Your task to perform on an android device: add a contact Image 0: 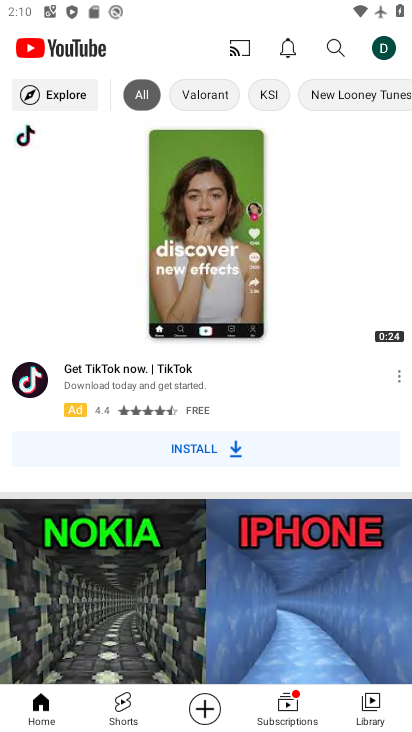
Step 0: press home button
Your task to perform on an android device: add a contact Image 1: 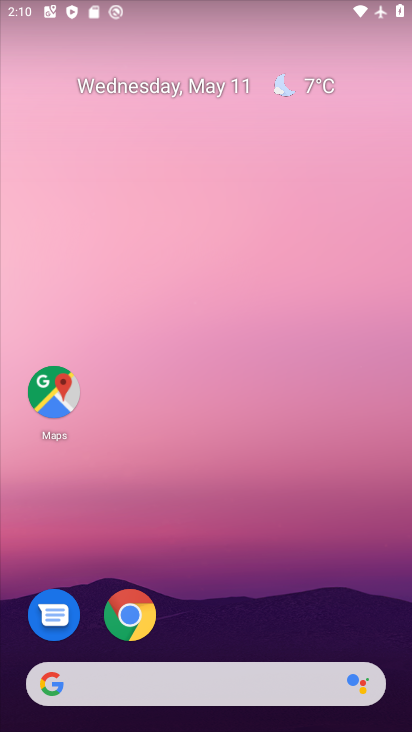
Step 1: drag from (258, 595) to (250, 139)
Your task to perform on an android device: add a contact Image 2: 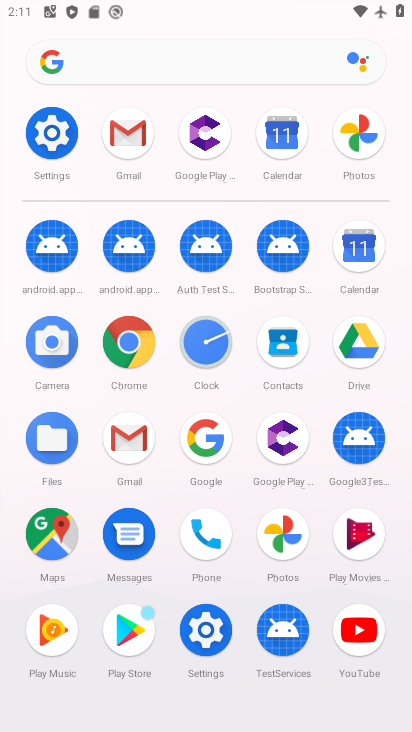
Step 2: click (287, 340)
Your task to perform on an android device: add a contact Image 3: 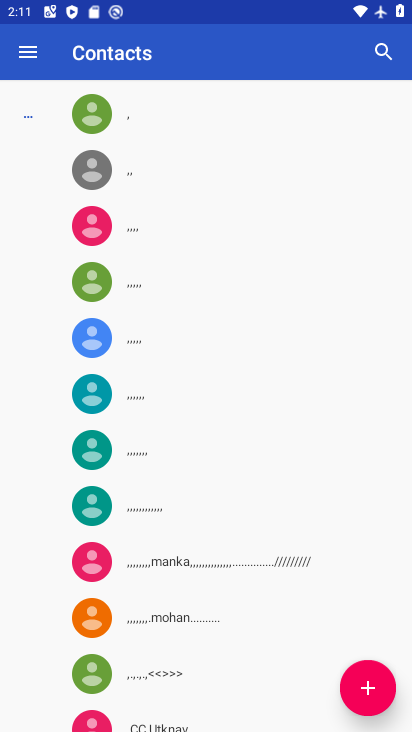
Step 3: click (372, 680)
Your task to perform on an android device: add a contact Image 4: 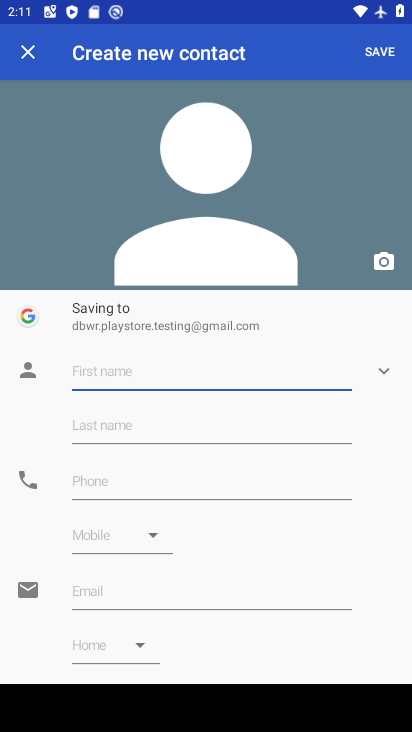
Step 4: click (200, 367)
Your task to perform on an android device: add a contact Image 5: 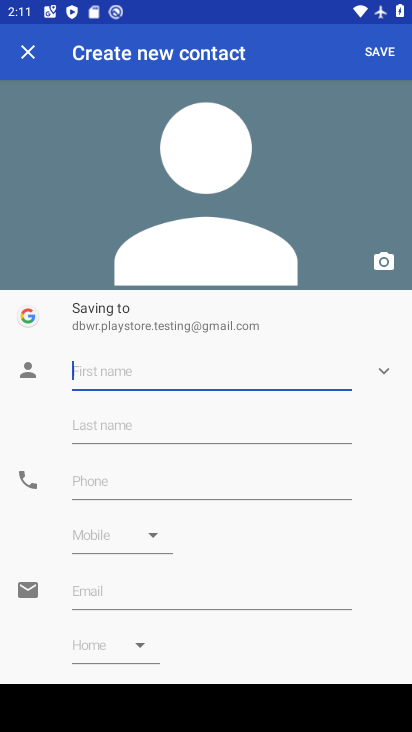
Step 5: type "boby"
Your task to perform on an android device: add a contact Image 6: 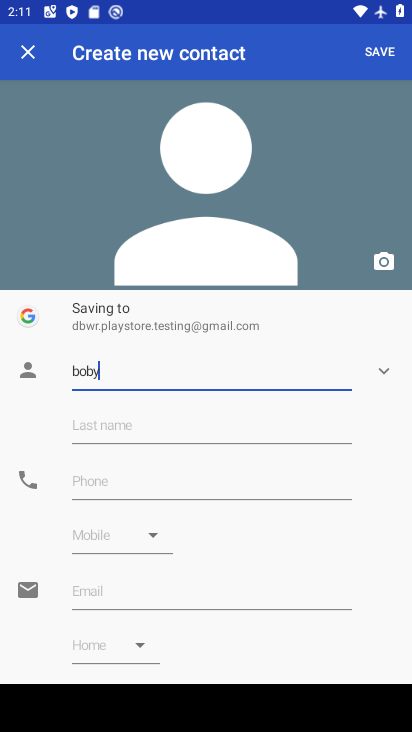
Step 6: click (389, 54)
Your task to perform on an android device: add a contact Image 7: 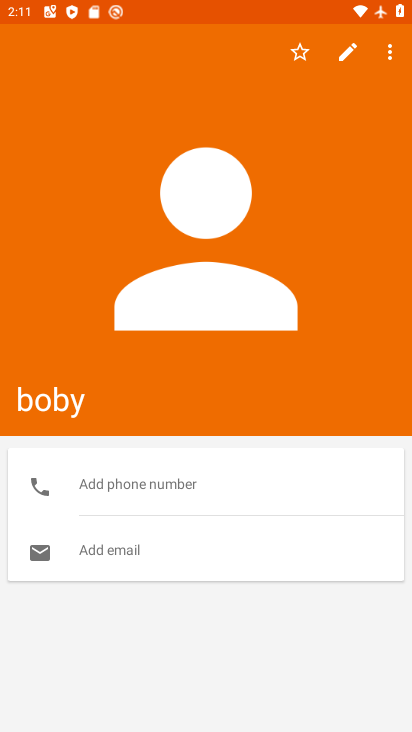
Step 7: task complete